Your task to perform on an android device: Show me popular games on the Play Store Image 0: 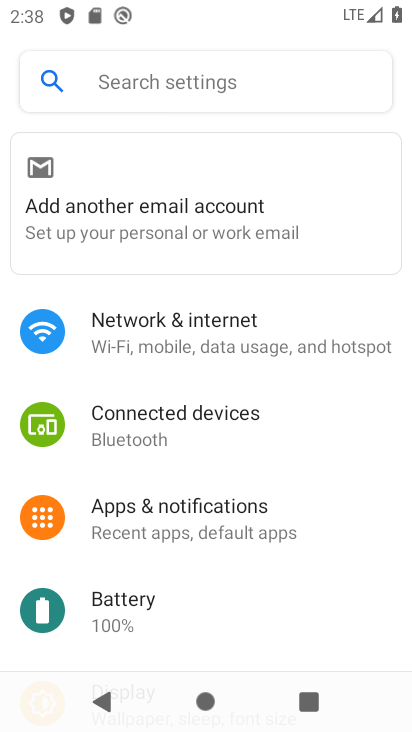
Step 0: press home button
Your task to perform on an android device: Show me popular games on the Play Store Image 1: 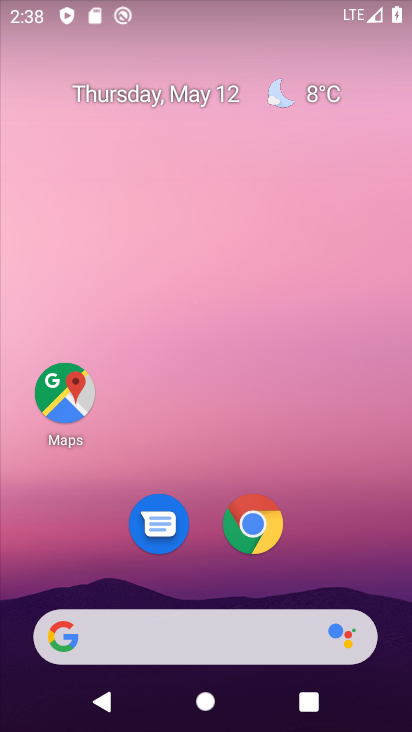
Step 1: drag from (160, 429) to (183, 35)
Your task to perform on an android device: Show me popular games on the Play Store Image 2: 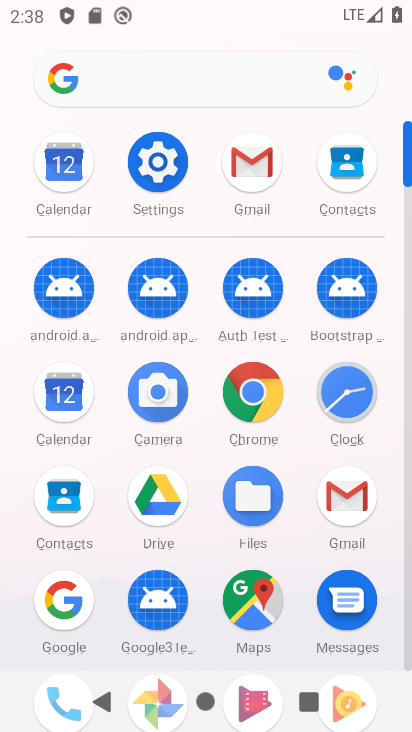
Step 2: drag from (112, 405) to (115, 161)
Your task to perform on an android device: Show me popular games on the Play Store Image 3: 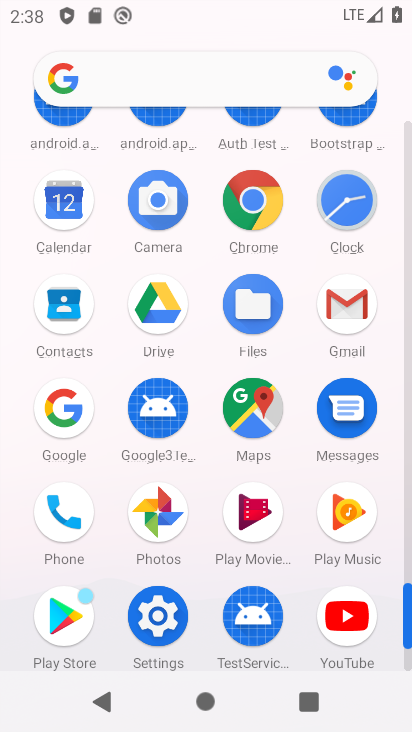
Step 3: click (61, 593)
Your task to perform on an android device: Show me popular games on the Play Store Image 4: 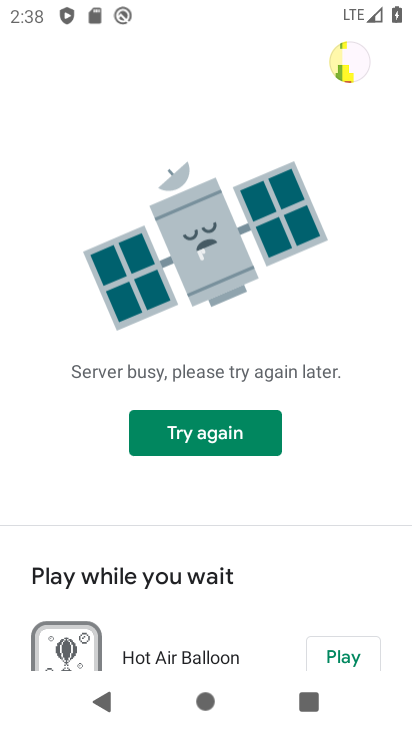
Step 4: click (264, 444)
Your task to perform on an android device: Show me popular games on the Play Store Image 5: 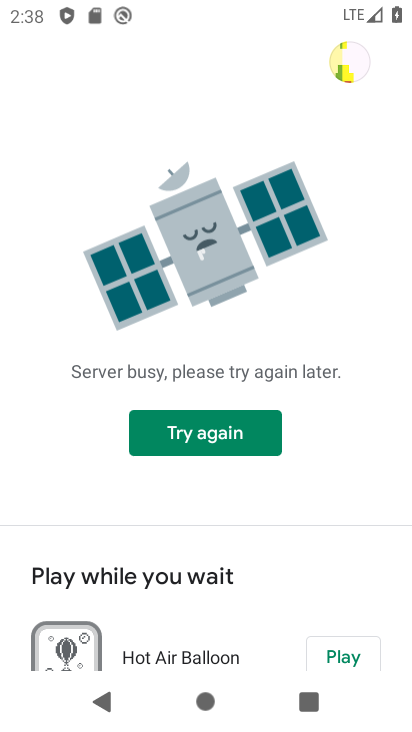
Step 5: click (240, 435)
Your task to perform on an android device: Show me popular games on the Play Store Image 6: 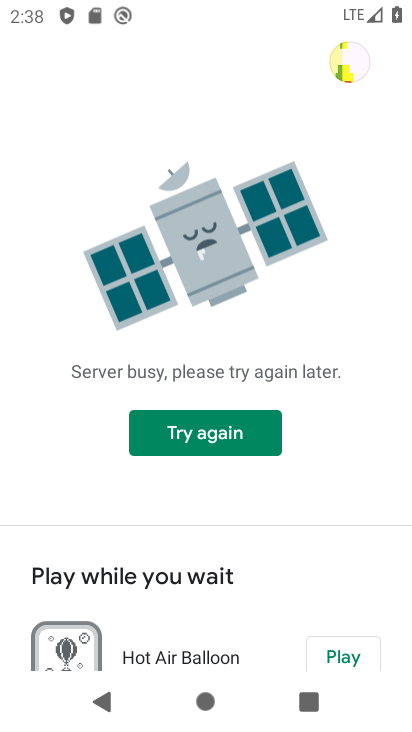
Step 6: drag from (183, 507) to (175, 169)
Your task to perform on an android device: Show me popular games on the Play Store Image 7: 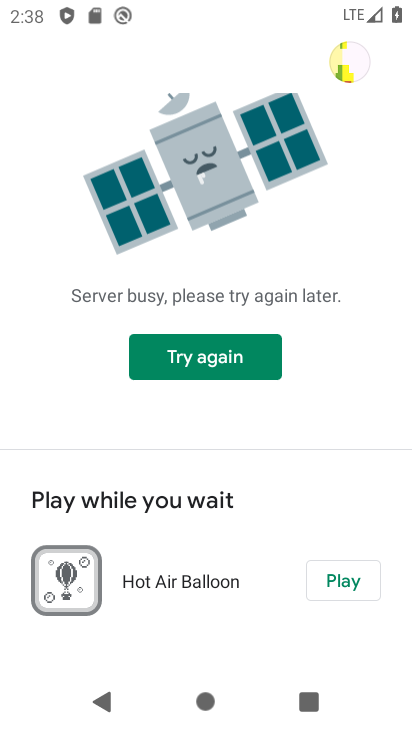
Step 7: click (159, 355)
Your task to perform on an android device: Show me popular games on the Play Store Image 8: 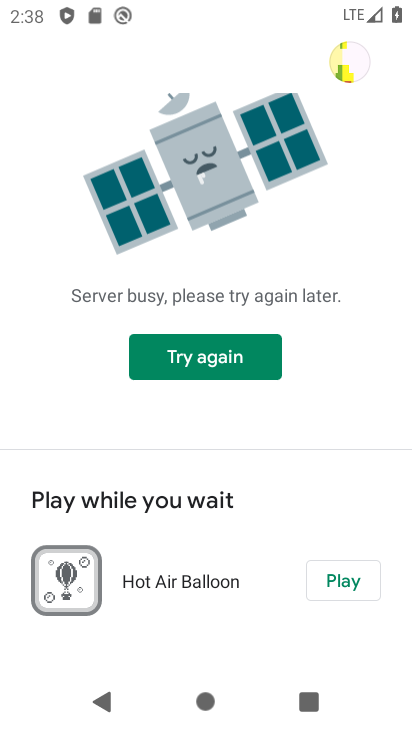
Step 8: click (197, 367)
Your task to perform on an android device: Show me popular games on the Play Store Image 9: 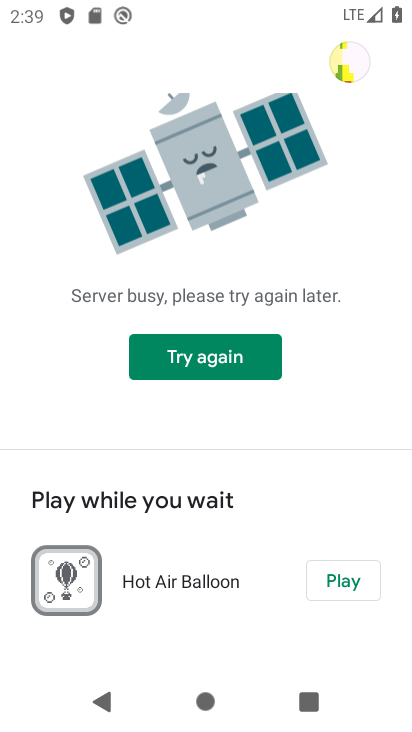
Step 9: click (197, 364)
Your task to perform on an android device: Show me popular games on the Play Store Image 10: 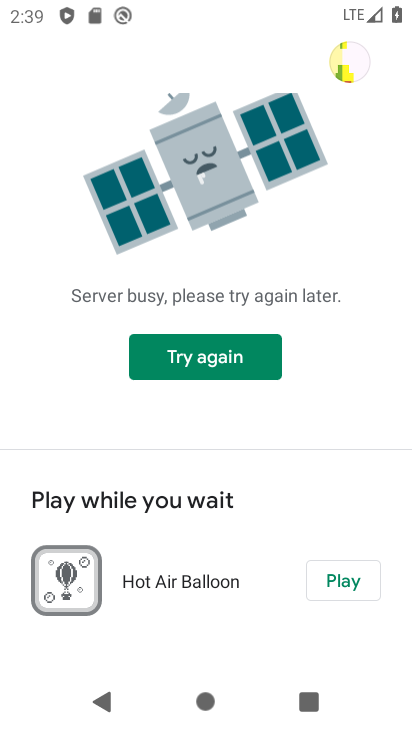
Step 10: task complete